Your task to perform on an android device: Go to Android settings Image 0: 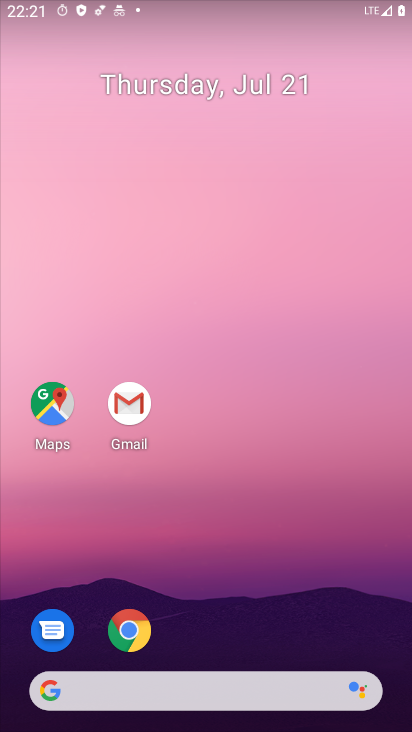
Step 0: click (281, 135)
Your task to perform on an android device: Go to Android settings Image 1: 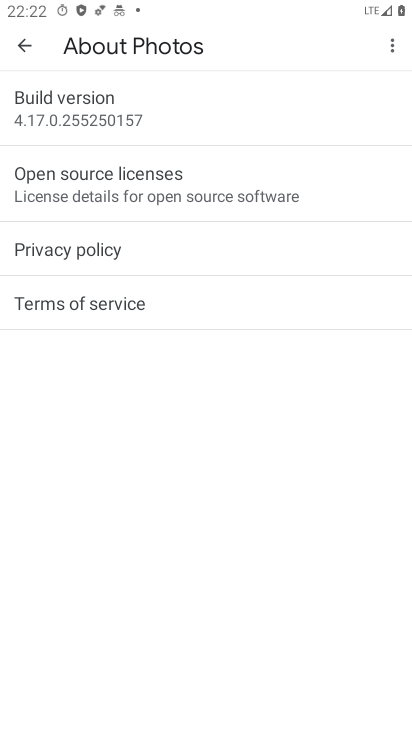
Step 1: drag from (267, 558) to (262, 82)
Your task to perform on an android device: Go to Android settings Image 2: 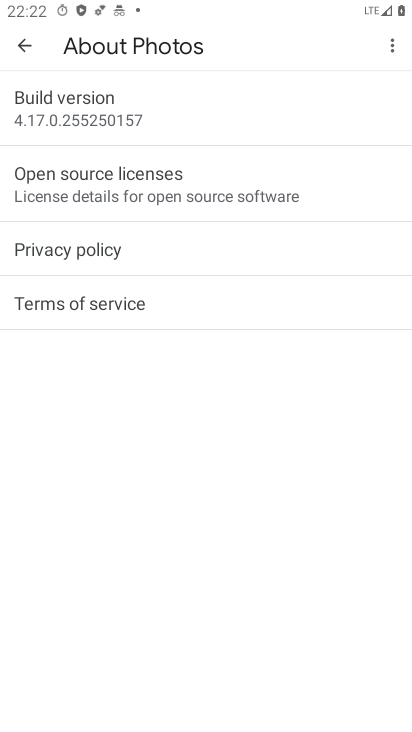
Step 2: drag from (270, 206) to (121, 83)
Your task to perform on an android device: Go to Android settings Image 3: 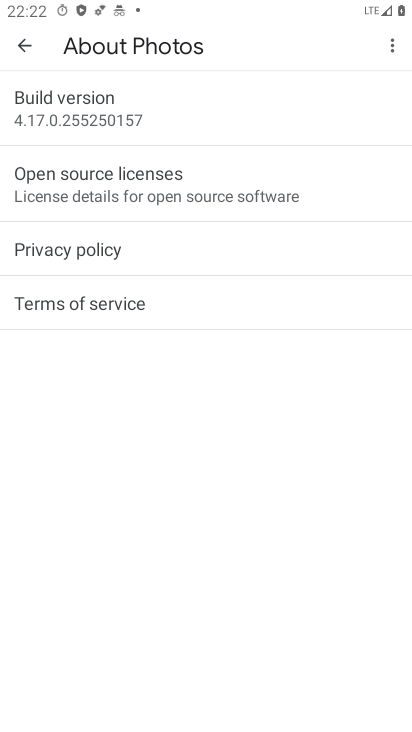
Step 3: click (28, 43)
Your task to perform on an android device: Go to Android settings Image 4: 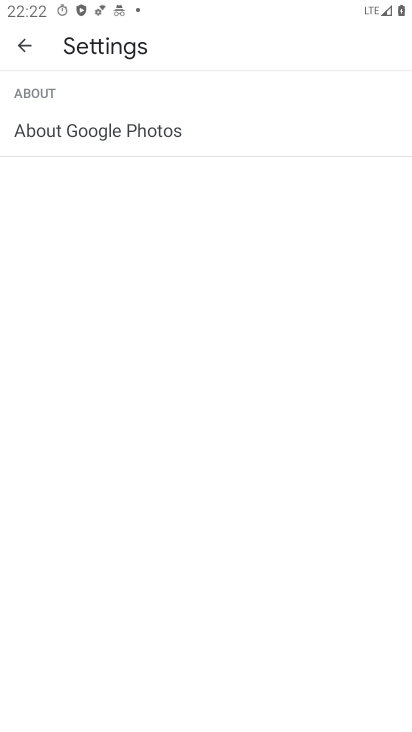
Step 4: click (28, 43)
Your task to perform on an android device: Go to Android settings Image 5: 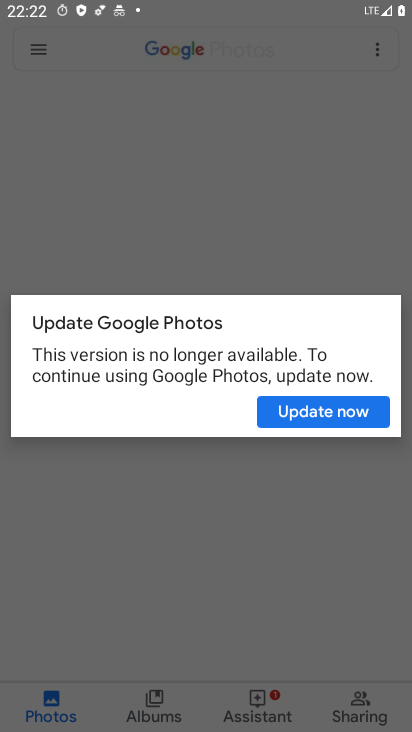
Step 5: press back button
Your task to perform on an android device: Go to Android settings Image 6: 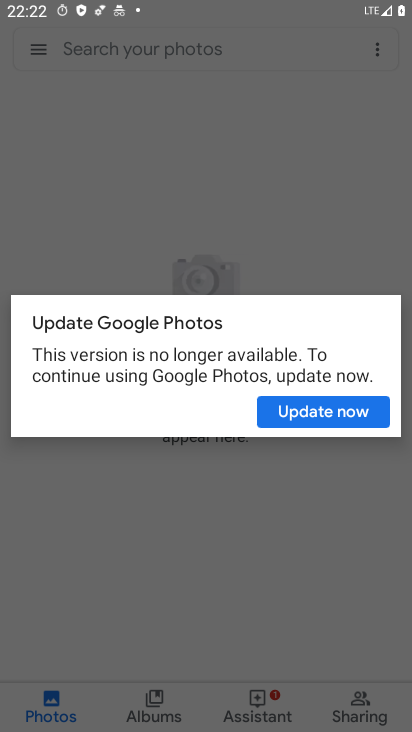
Step 6: press home button
Your task to perform on an android device: Go to Android settings Image 7: 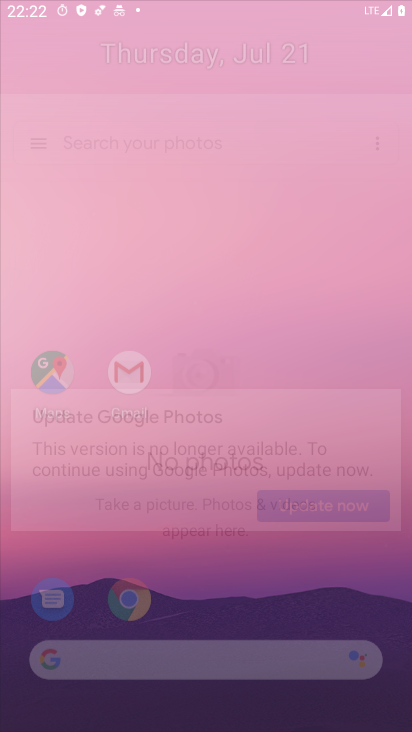
Step 7: press back button
Your task to perform on an android device: Go to Android settings Image 8: 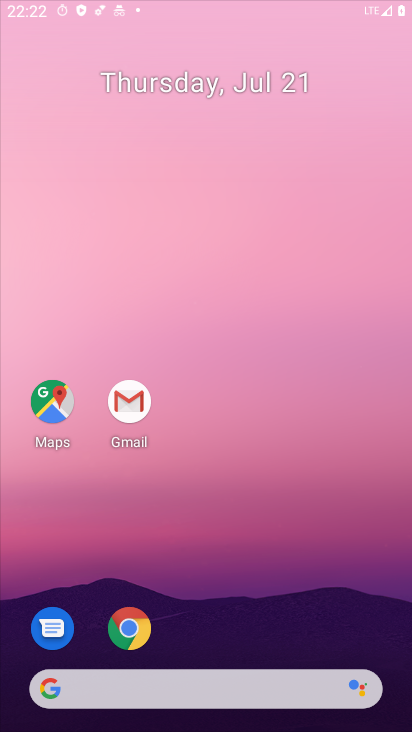
Step 8: click (261, 199)
Your task to perform on an android device: Go to Android settings Image 9: 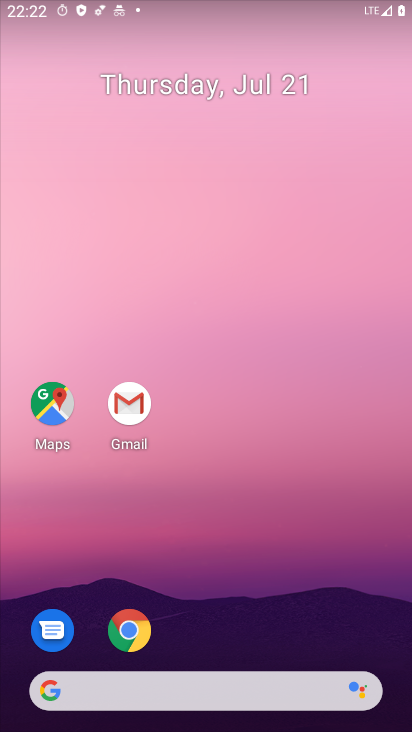
Step 9: drag from (295, 573) to (238, 55)
Your task to perform on an android device: Go to Android settings Image 10: 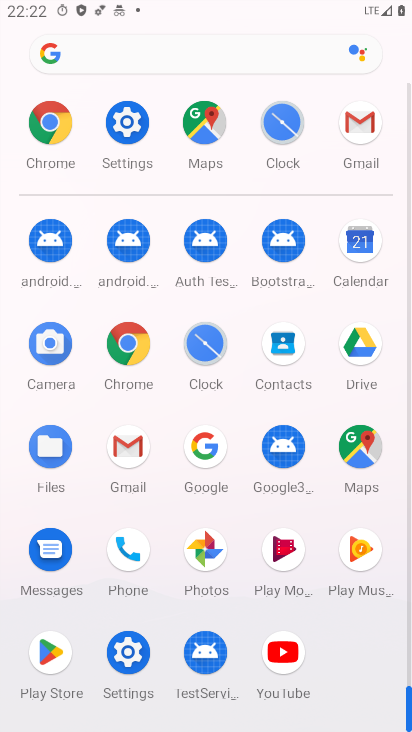
Step 10: click (122, 654)
Your task to perform on an android device: Go to Android settings Image 11: 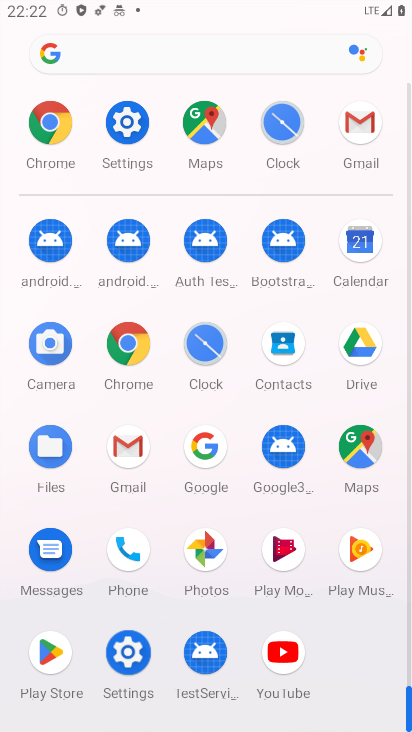
Step 11: click (120, 660)
Your task to perform on an android device: Go to Android settings Image 12: 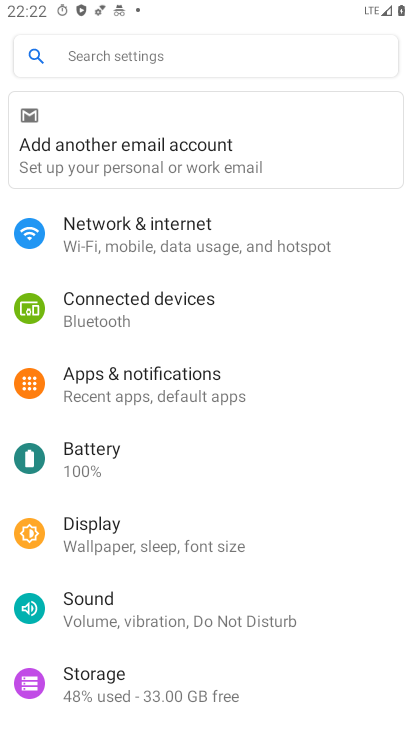
Step 12: drag from (149, 502) to (282, 149)
Your task to perform on an android device: Go to Android settings Image 13: 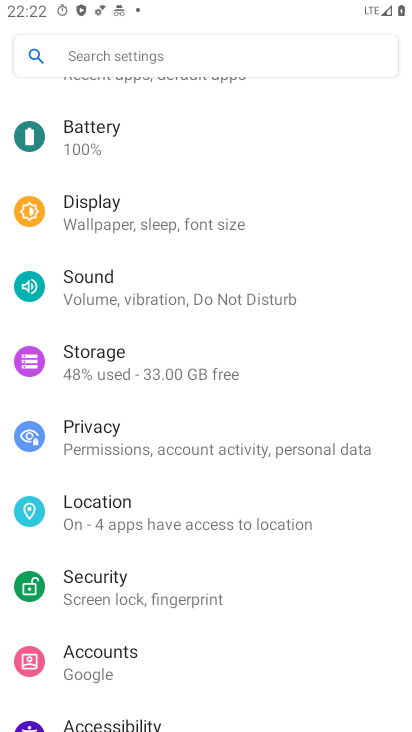
Step 13: drag from (193, 571) to (195, 134)
Your task to perform on an android device: Go to Android settings Image 14: 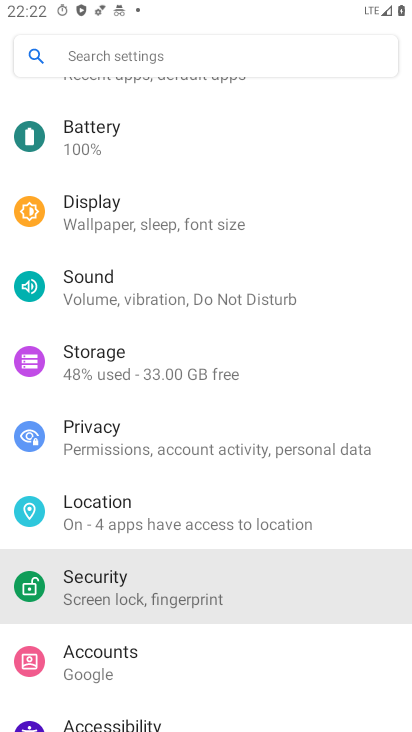
Step 14: click (263, 183)
Your task to perform on an android device: Go to Android settings Image 15: 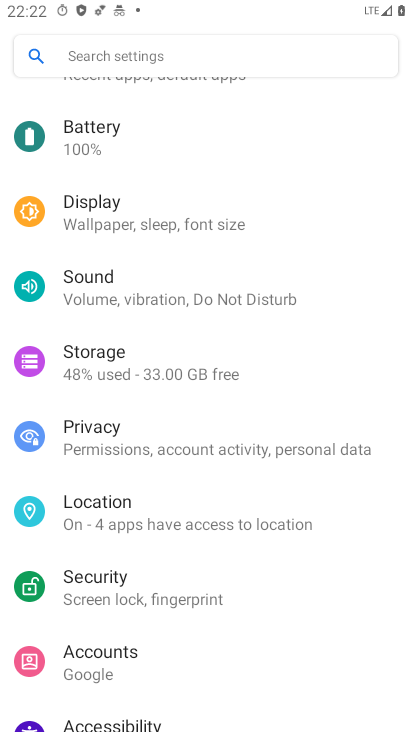
Step 15: drag from (148, 340) to (142, 74)
Your task to perform on an android device: Go to Android settings Image 16: 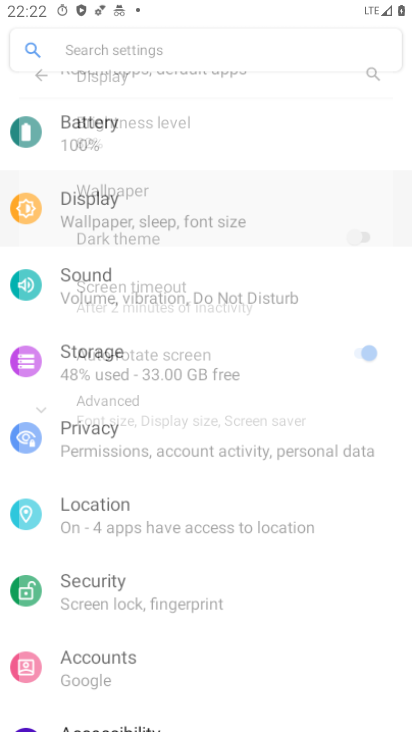
Step 16: click (130, 65)
Your task to perform on an android device: Go to Android settings Image 17: 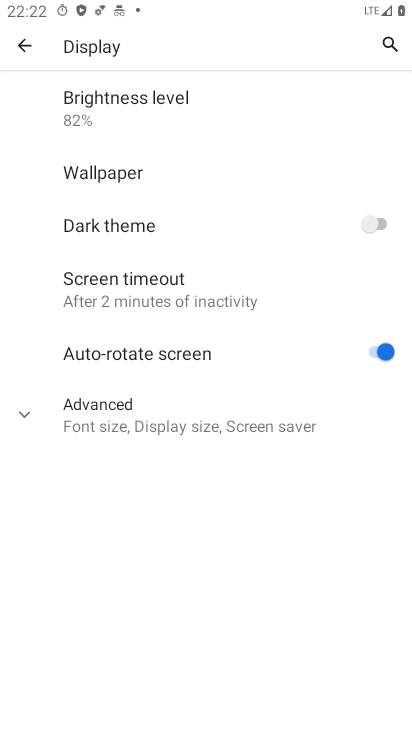
Step 17: drag from (98, 588) to (98, 167)
Your task to perform on an android device: Go to Android settings Image 18: 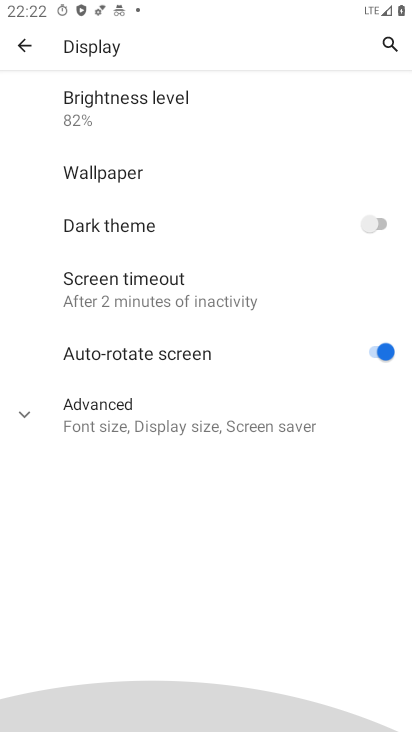
Step 18: drag from (158, 590) to (214, 350)
Your task to perform on an android device: Go to Android settings Image 19: 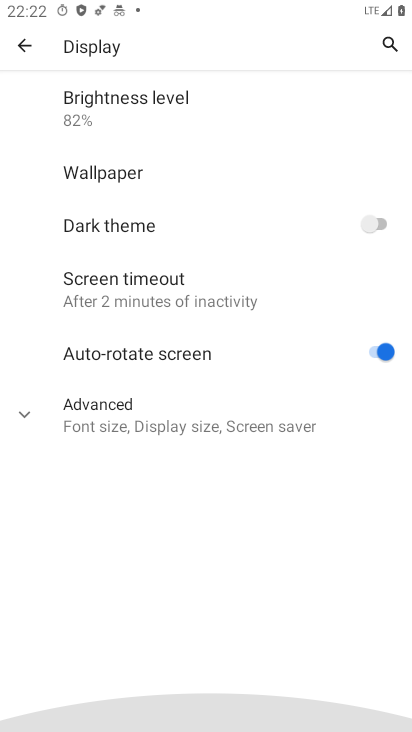
Step 19: drag from (260, 394) to (244, 290)
Your task to perform on an android device: Go to Android settings Image 20: 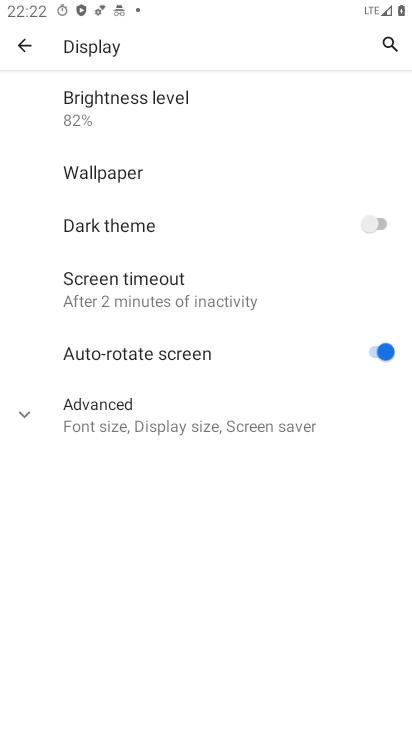
Step 20: click (14, 63)
Your task to perform on an android device: Go to Android settings Image 21: 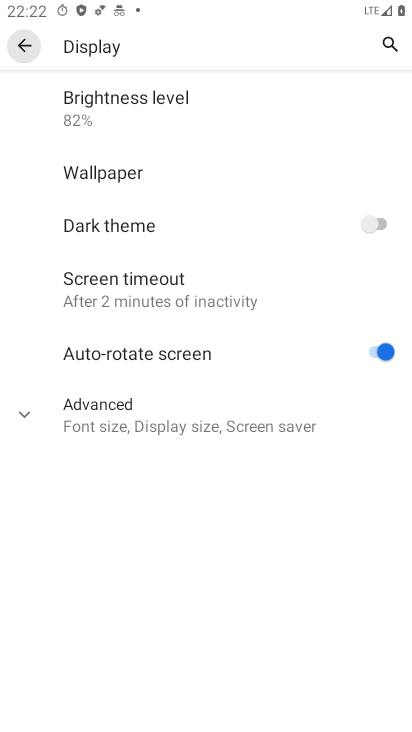
Step 21: click (16, 62)
Your task to perform on an android device: Go to Android settings Image 22: 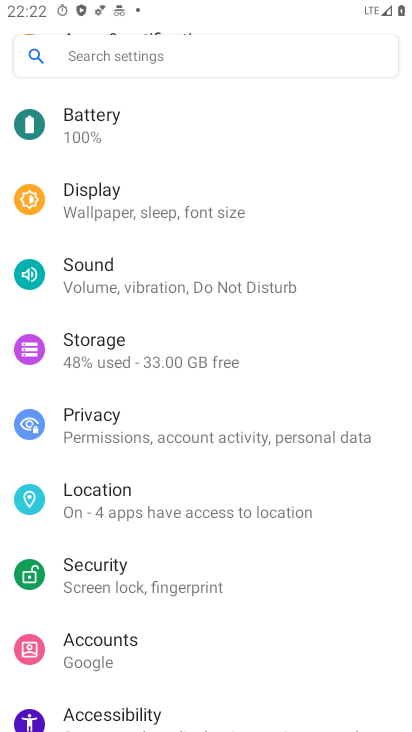
Step 22: drag from (198, 555) to (183, 188)
Your task to perform on an android device: Go to Android settings Image 23: 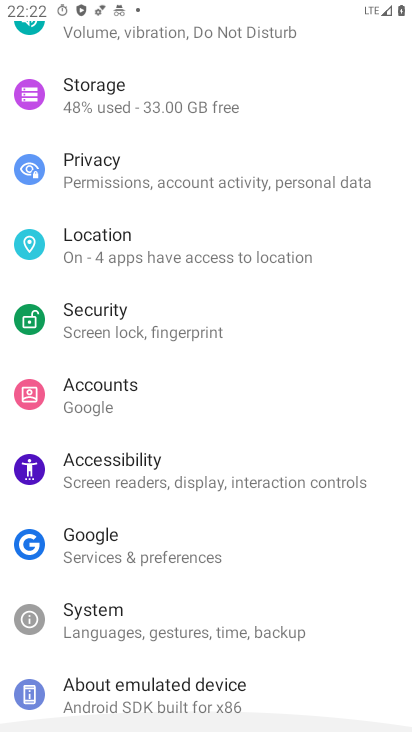
Step 23: drag from (182, 459) to (177, 216)
Your task to perform on an android device: Go to Android settings Image 24: 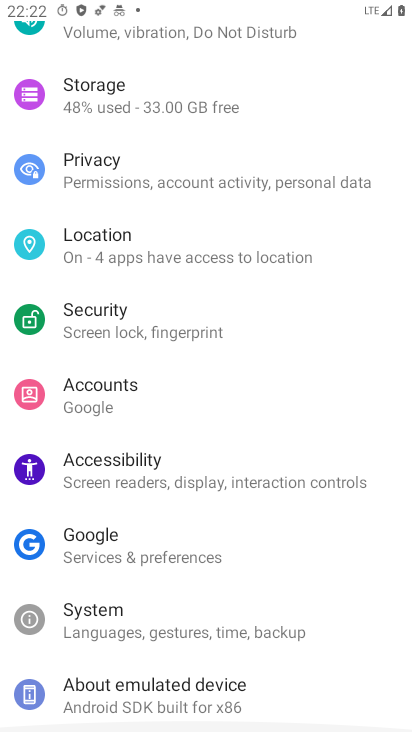
Step 24: drag from (198, 453) to (212, 150)
Your task to perform on an android device: Go to Android settings Image 25: 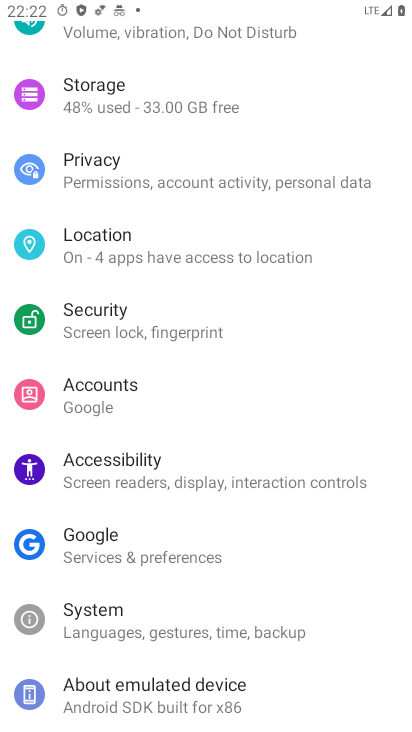
Step 25: click (194, 148)
Your task to perform on an android device: Go to Android settings Image 26: 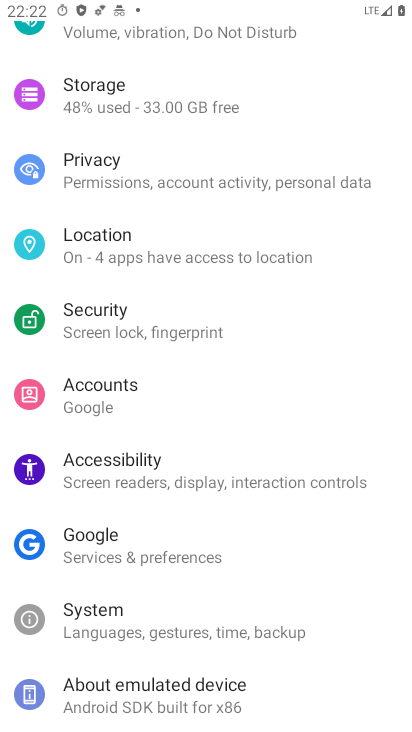
Step 26: drag from (188, 445) to (187, 245)
Your task to perform on an android device: Go to Android settings Image 27: 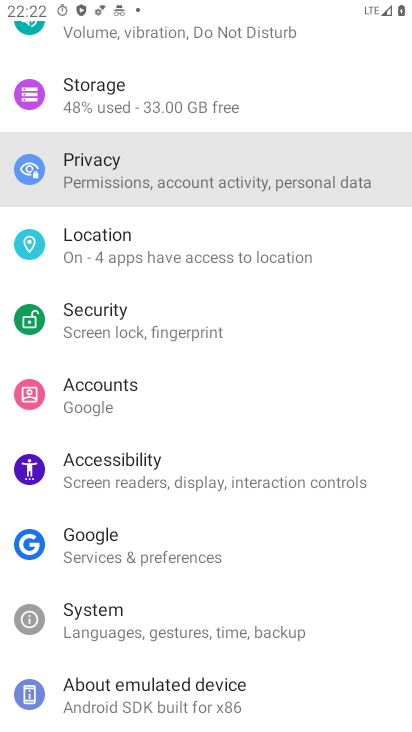
Step 27: click (158, 701)
Your task to perform on an android device: Go to Android settings Image 28: 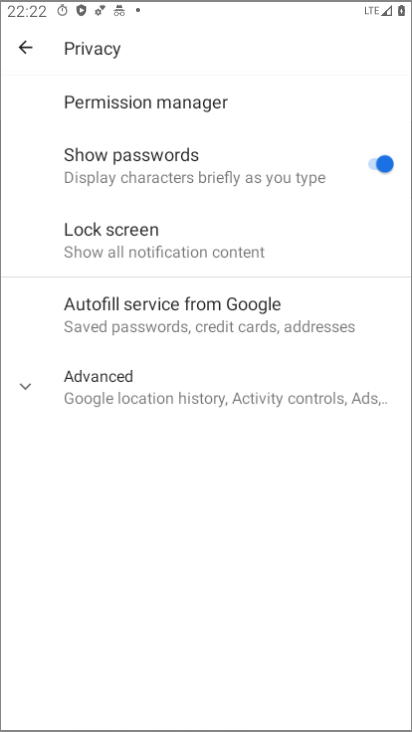
Step 28: click (157, 697)
Your task to perform on an android device: Go to Android settings Image 29: 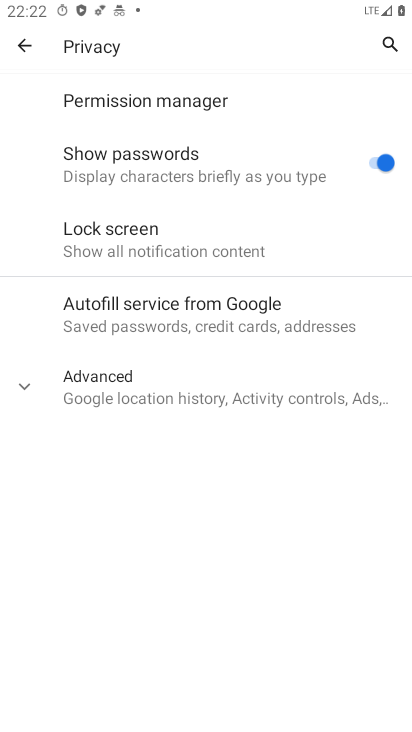
Step 29: click (156, 697)
Your task to perform on an android device: Go to Android settings Image 30: 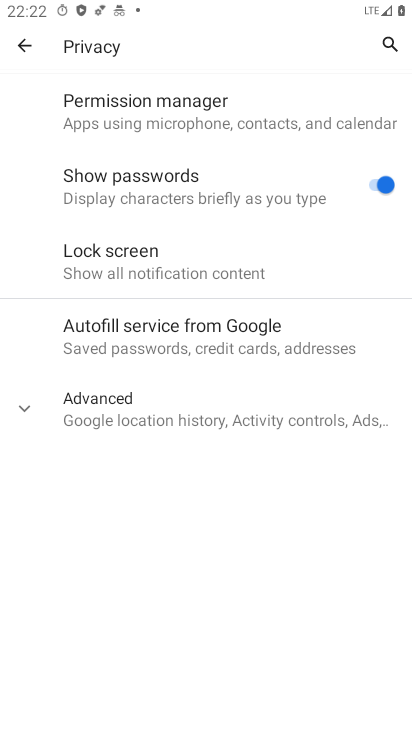
Step 30: click (29, 38)
Your task to perform on an android device: Go to Android settings Image 31: 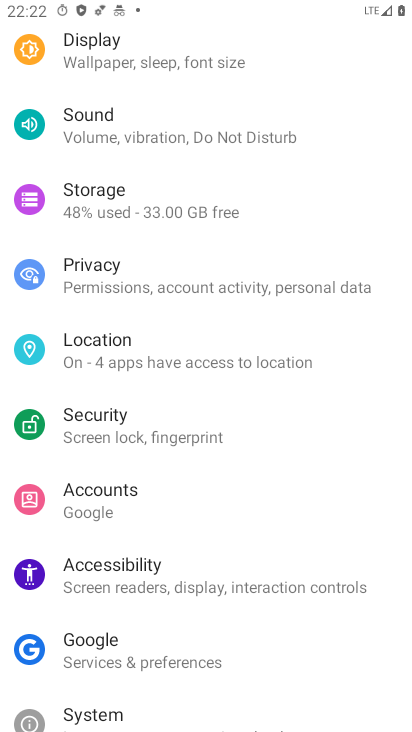
Step 31: drag from (164, 613) to (128, 324)
Your task to perform on an android device: Go to Android settings Image 32: 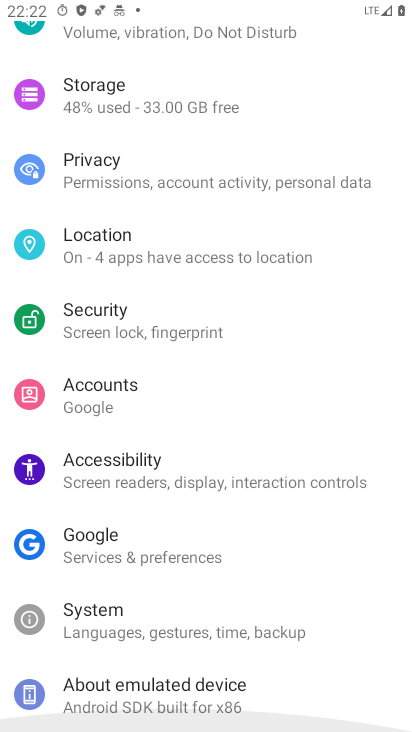
Step 32: drag from (127, 482) to (149, 306)
Your task to perform on an android device: Go to Android settings Image 33: 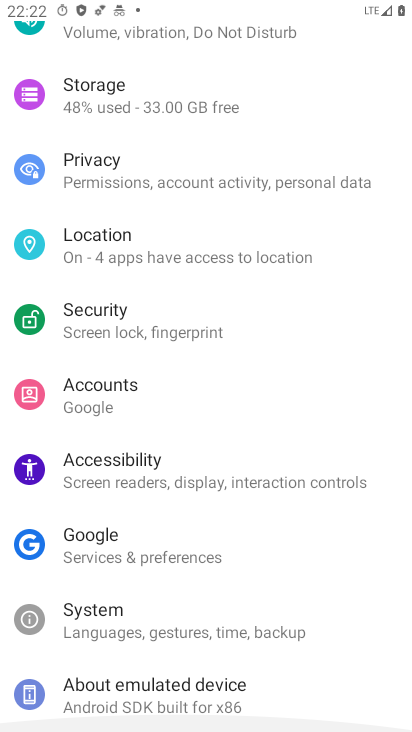
Step 33: drag from (195, 564) to (143, 330)
Your task to perform on an android device: Go to Android settings Image 34: 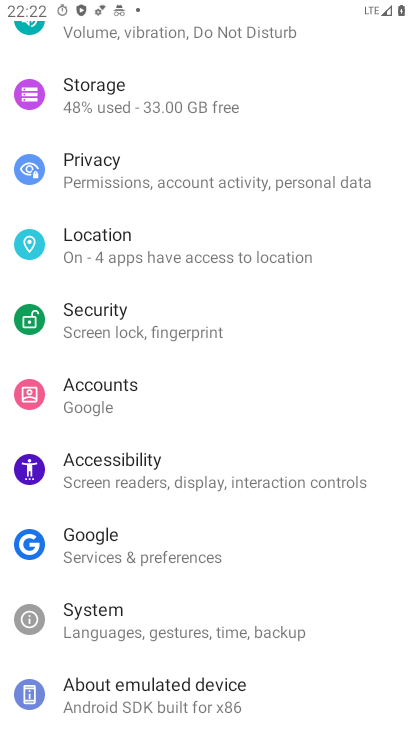
Step 34: click (304, 515)
Your task to perform on an android device: Go to Android settings Image 35: 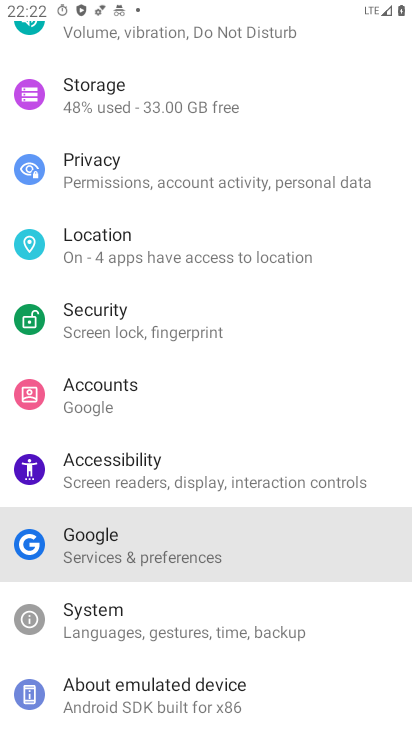
Step 35: click (303, 512)
Your task to perform on an android device: Go to Android settings Image 36: 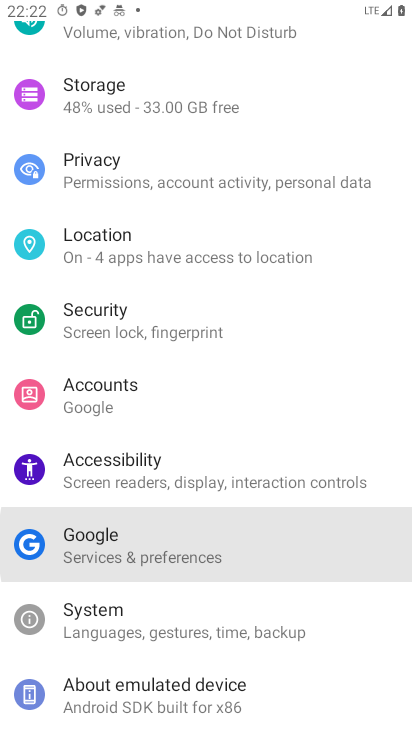
Step 36: drag from (208, 641) to (210, 337)
Your task to perform on an android device: Go to Android settings Image 37: 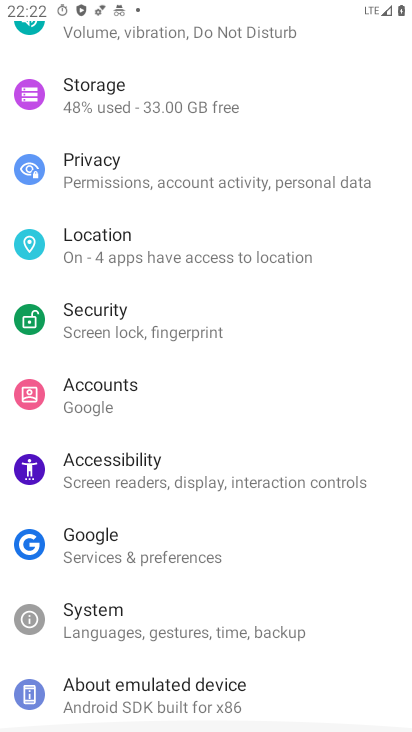
Step 37: click (177, 702)
Your task to perform on an android device: Go to Android settings Image 38: 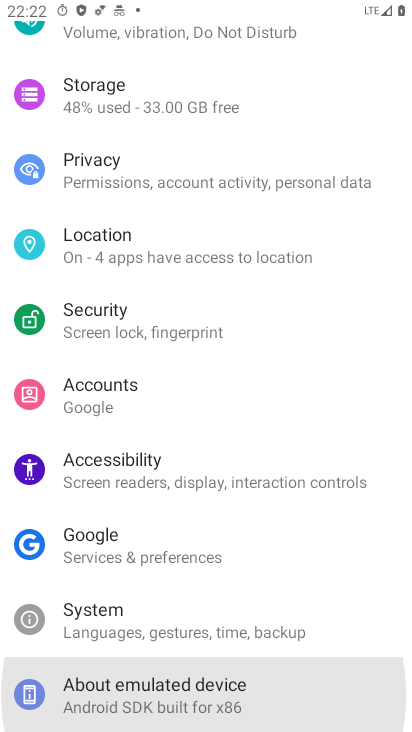
Step 38: click (186, 686)
Your task to perform on an android device: Go to Android settings Image 39: 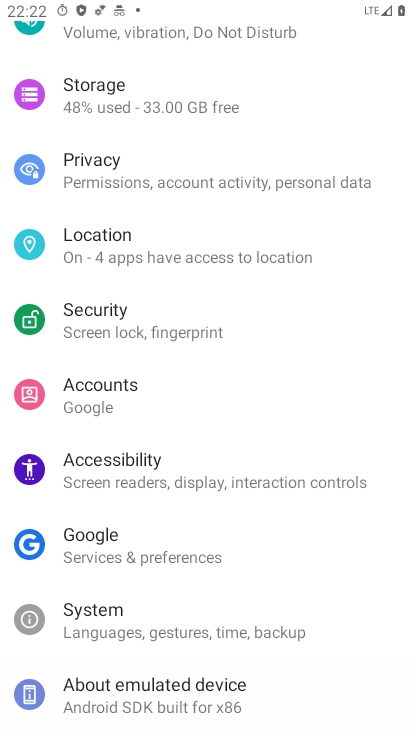
Step 39: click (184, 687)
Your task to perform on an android device: Go to Android settings Image 40: 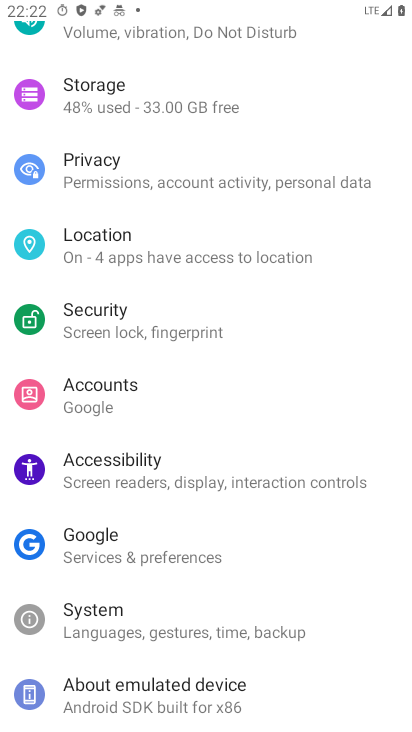
Step 40: click (184, 689)
Your task to perform on an android device: Go to Android settings Image 41: 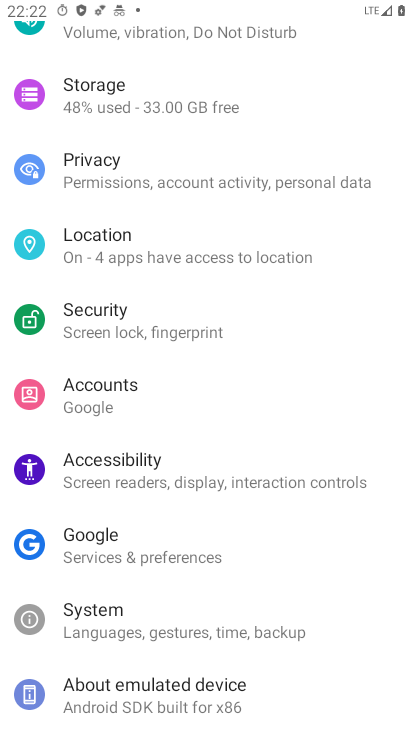
Step 41: click (185, 689)
Your task to perform on an android device: Go to Android settings Image 42: 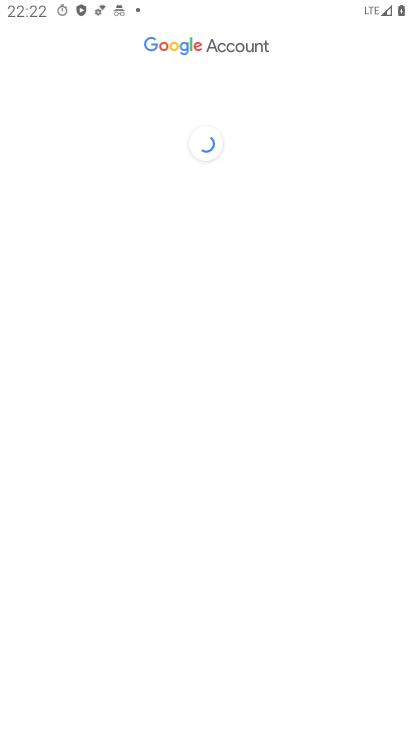
Step 42: click (152, 682)
Your task to perform on an android device: Go to Android settings Image 43: 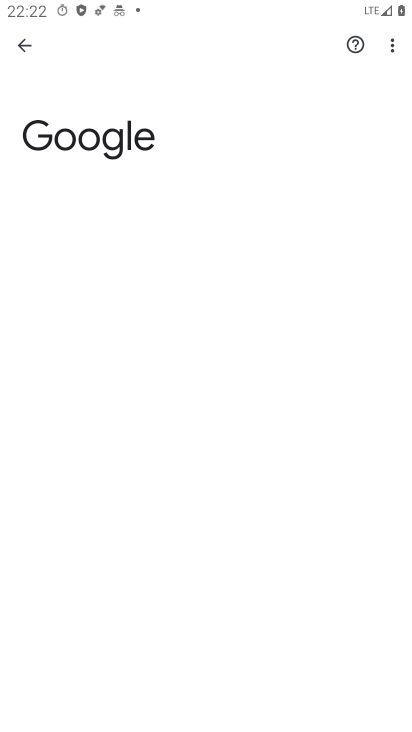
Step 43: task complete